Your task to perform on an android device: turn on priority inbox in the gmail app Image 0: 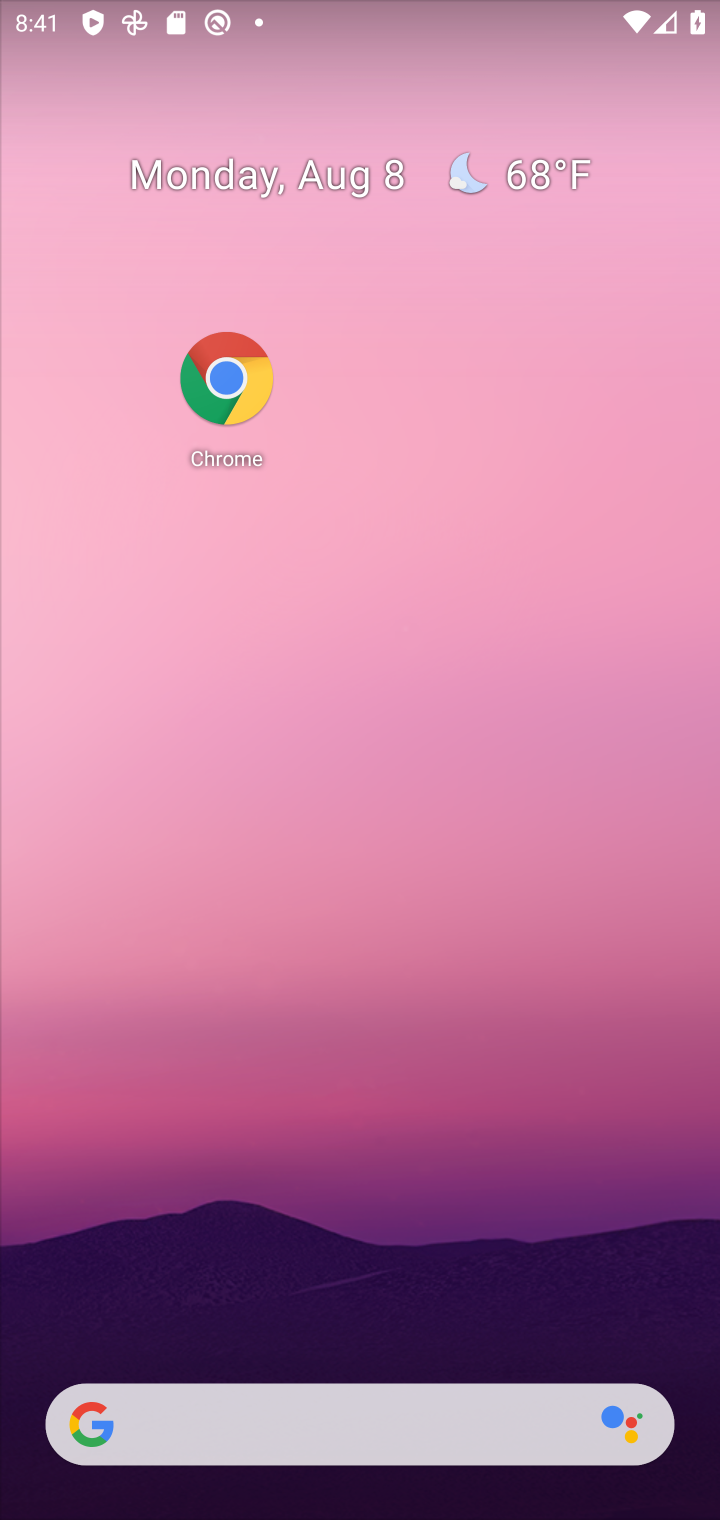
Step 0: drag from (11, 28) to (30, 673)
Your task to perform on an android device: turn on priority inbox in the gmail app Image 1: 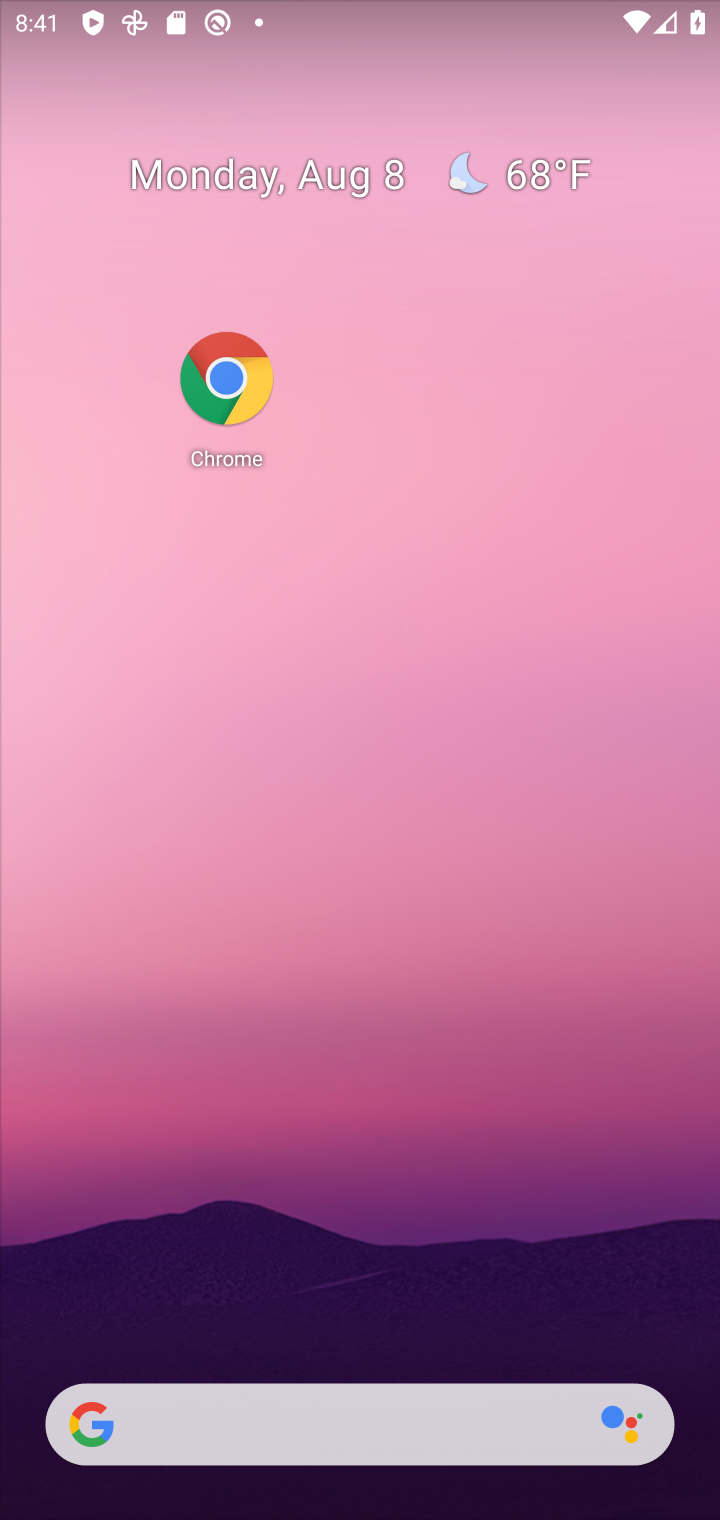
Step 1: drag from (344, 1150) to (427, 24)
Your task to perform on an android device: turn on priority inbox in the gmail app Image 2: 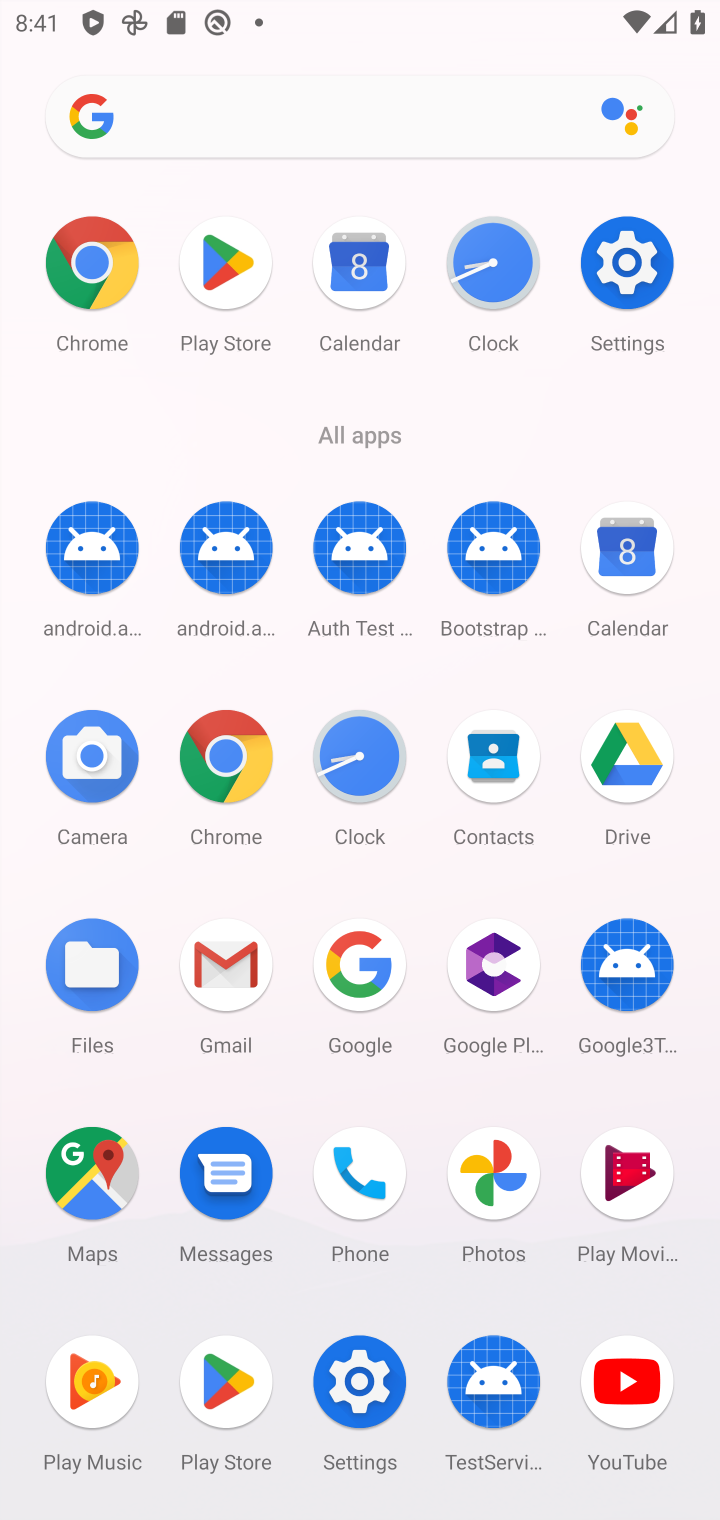
Step 2: click (248, 949)
Your task to perform on an android device: turn on priority inbox in the gmail app Image 3: 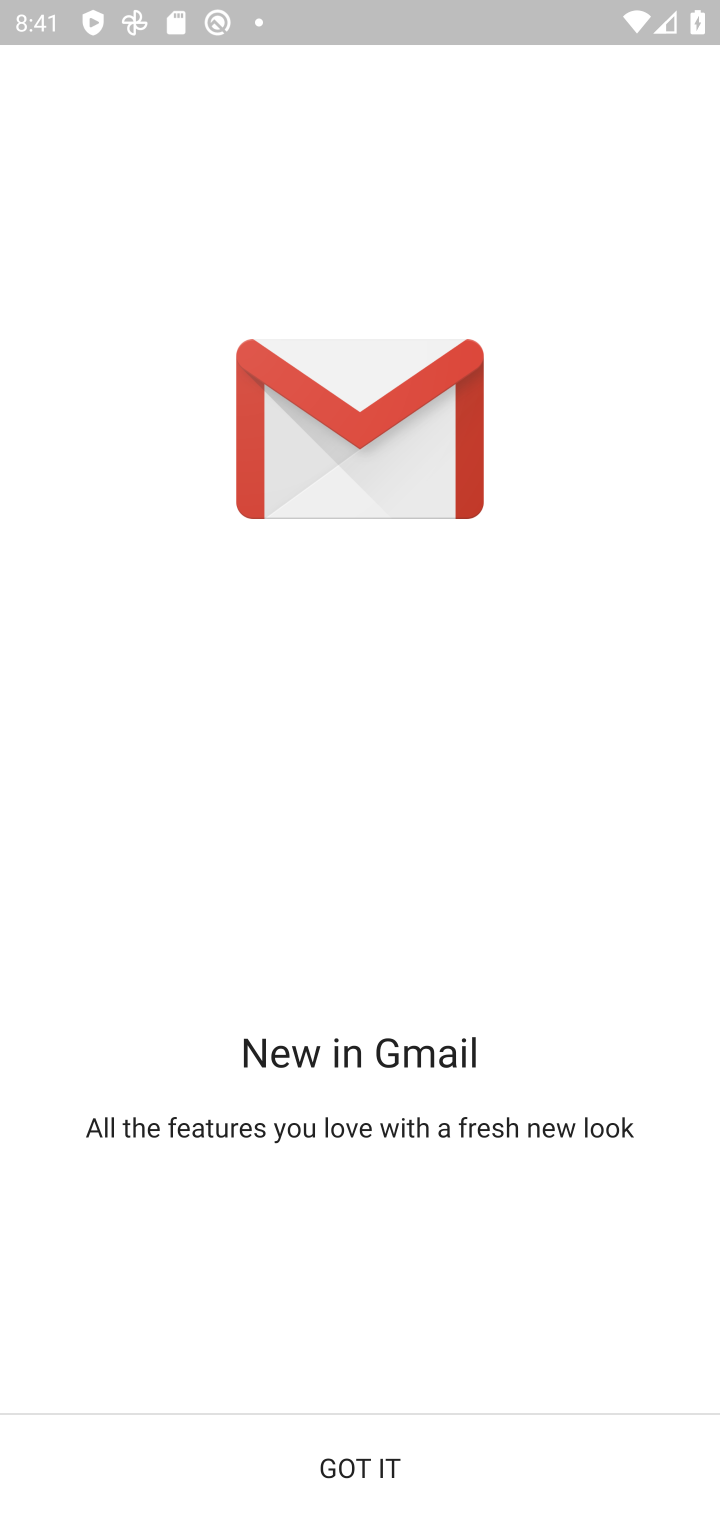
Step 3: click (329, 1485)
Your task to perform on an android device: turn on priority inbox in the gmail app Image 4: 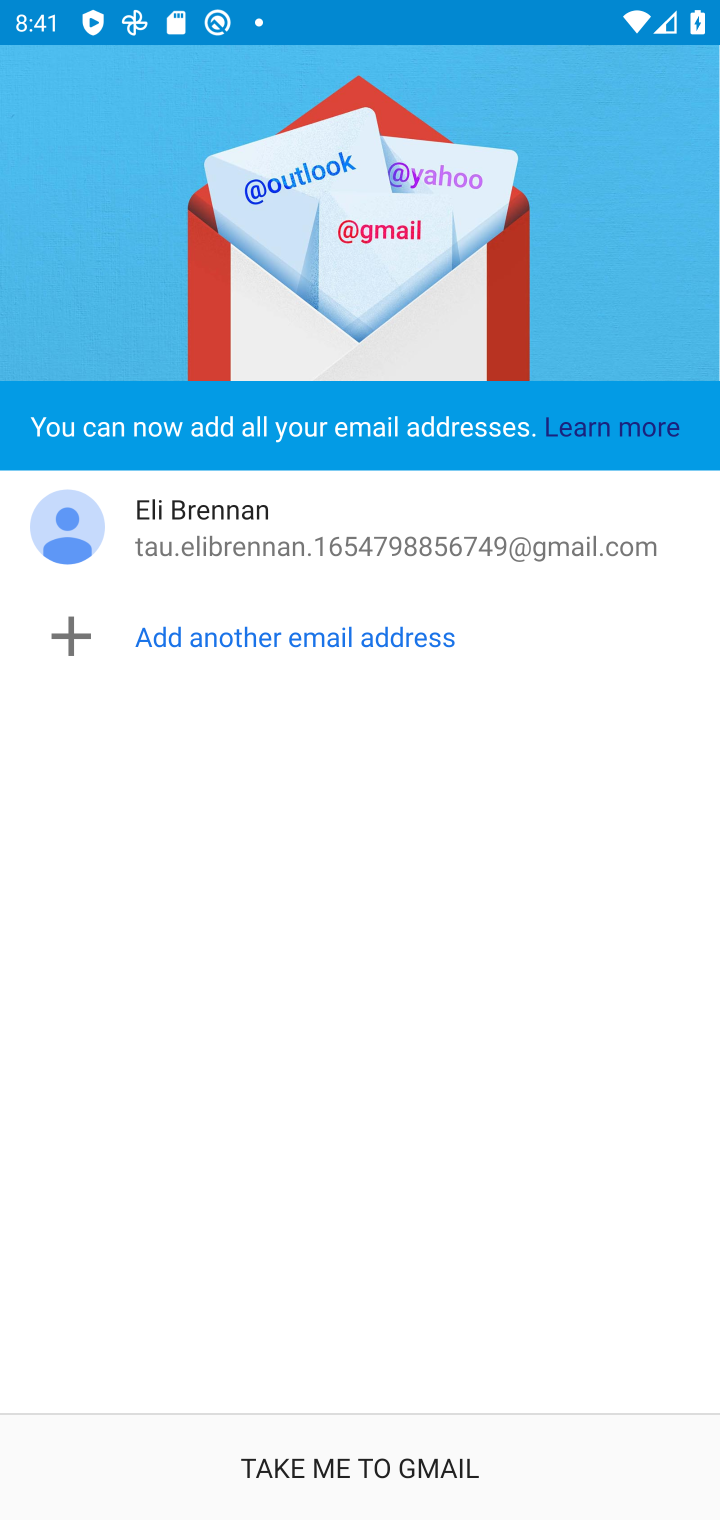
Step 4: click (333, 1465)
Your task to perform on an android device: turn on priority inbox in the gmail app Image 5: 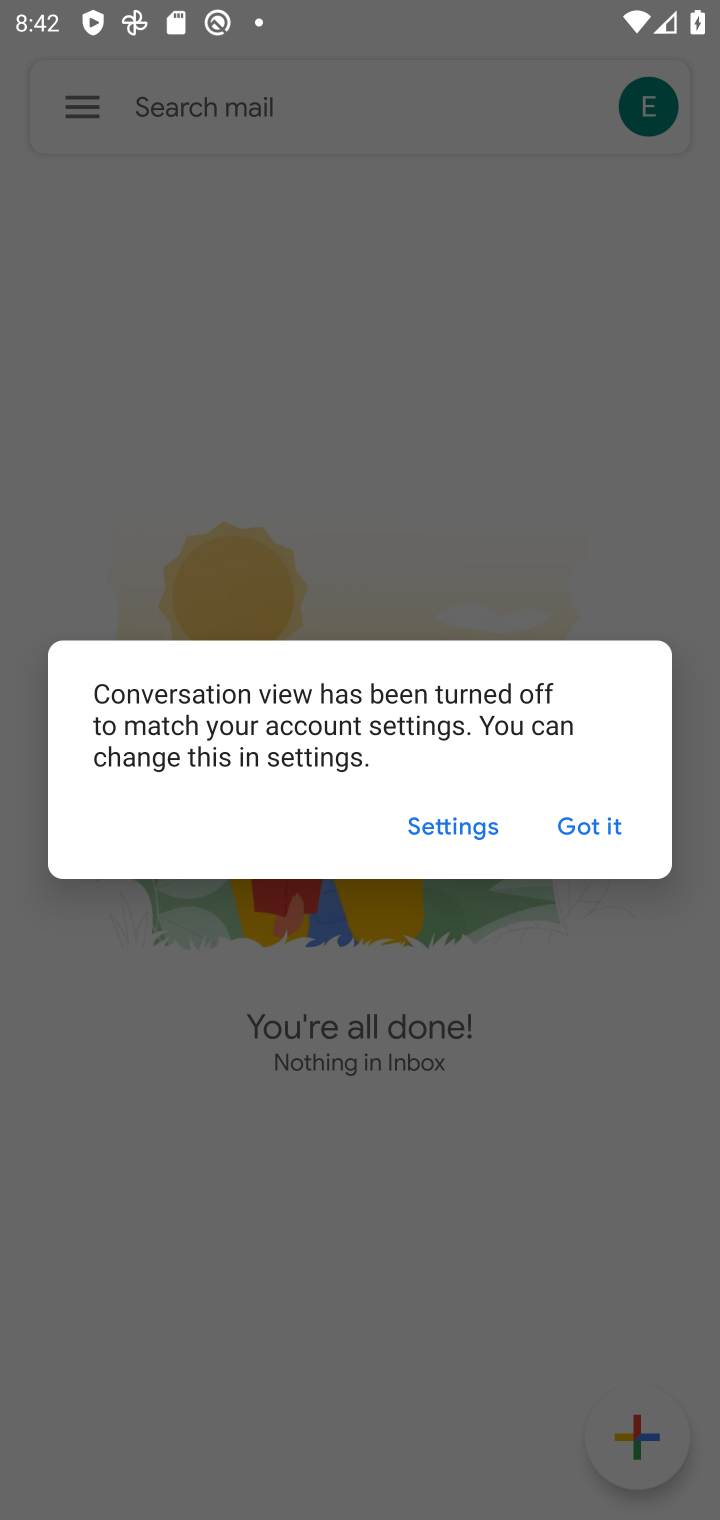
Step 5: click (572, 816)
Your task to perform on an android device: turn on priority inbox in the gmail app Image 6: 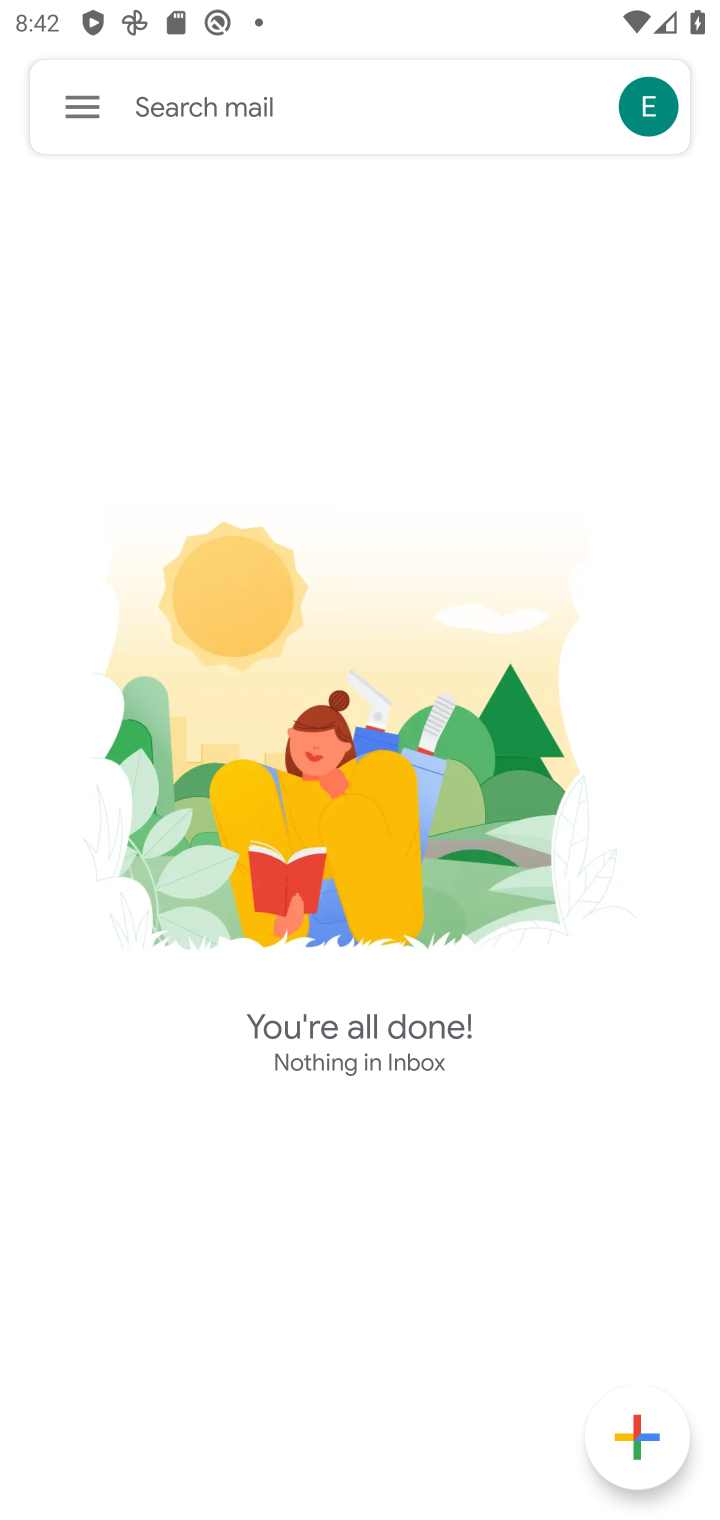
Step 6: click (91, 93)
Your task to perform on an android device: turn on priority inbox in the gmail app Image 7: 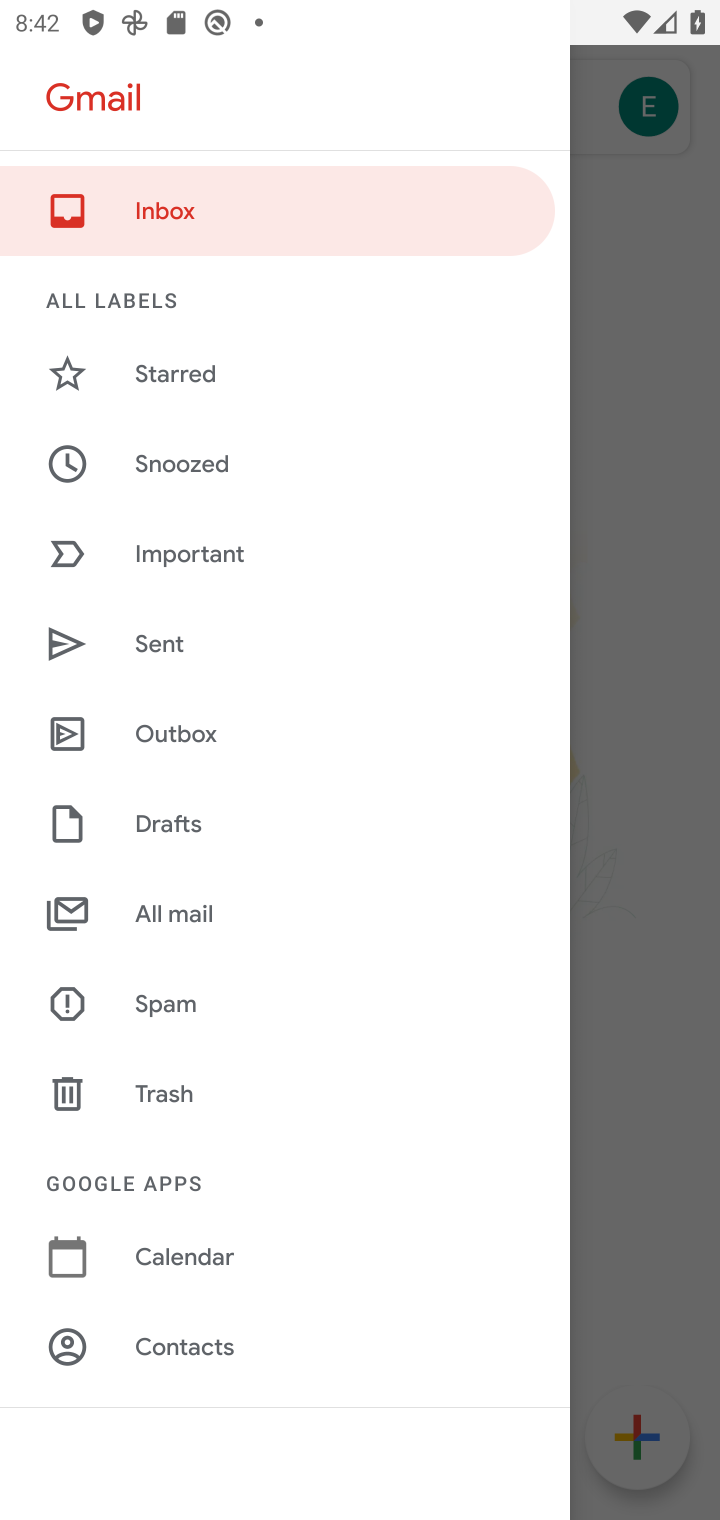
Step 7: drag from (220, 1292) to (259, 381)
Your task to perform on an android device: turn on priority inbox in the gmail app Image 8: 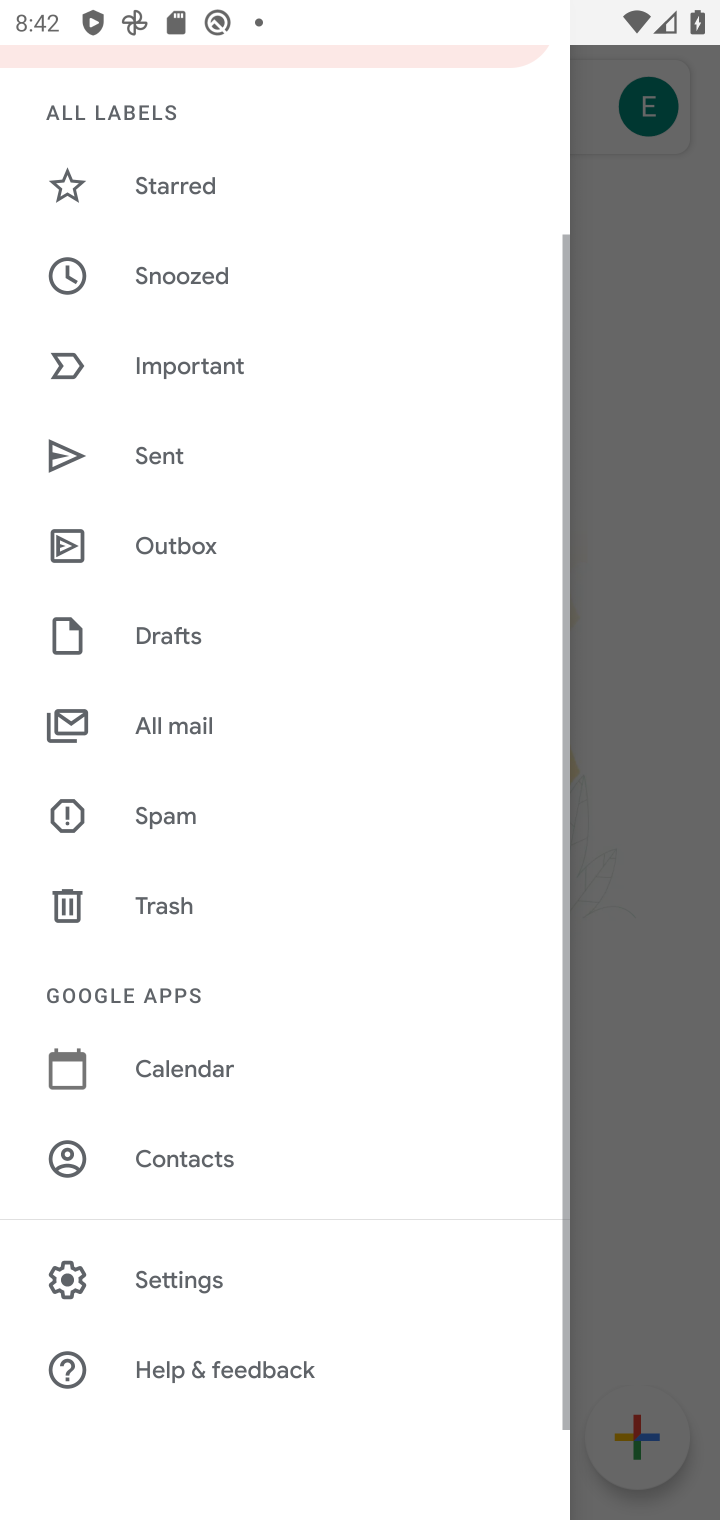
Step 8: click (215, 1270)
Your task to perform on an android device: turn on priority inbox in the gmail app Image 9: 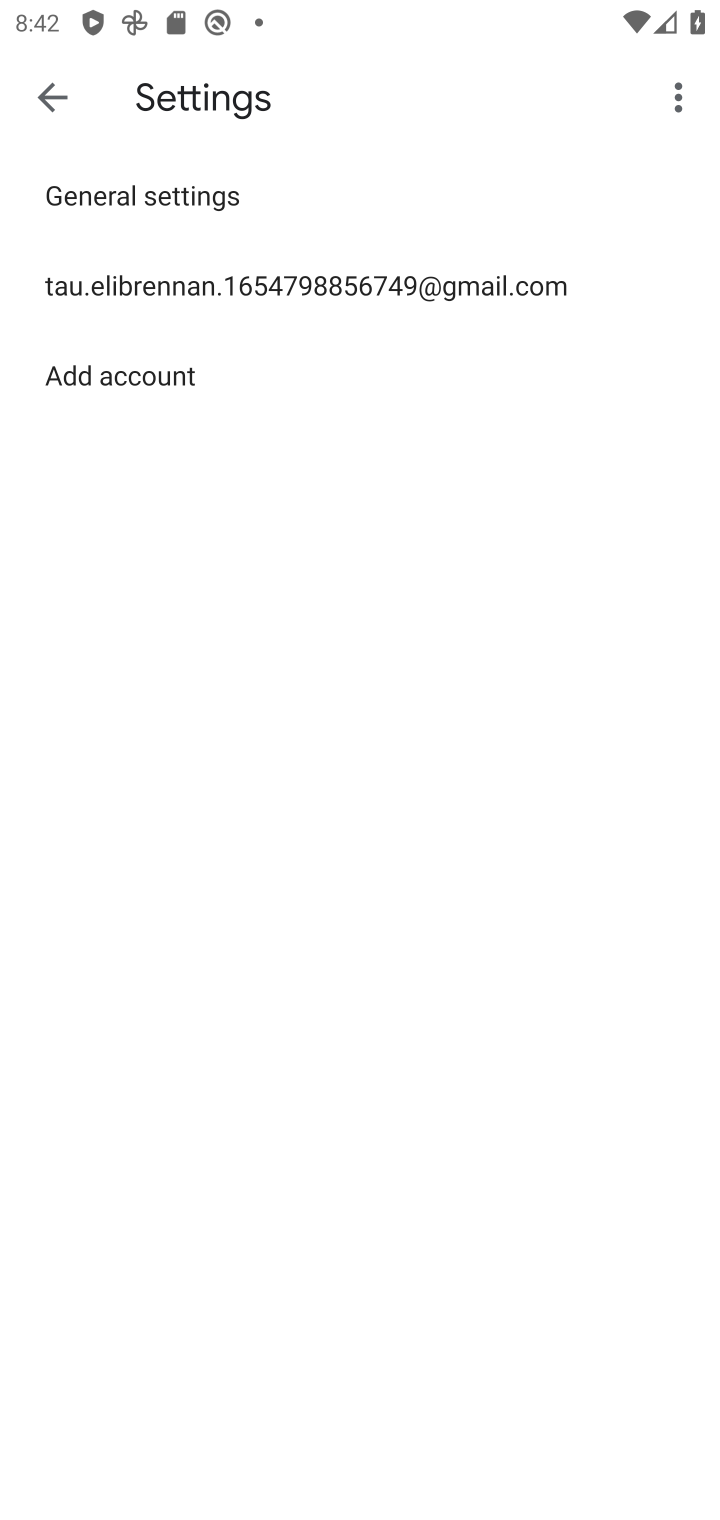
Step 9: click (175, 298)
Your task to perform on an android device: turn on priority inbox in the gmail app Image 10: 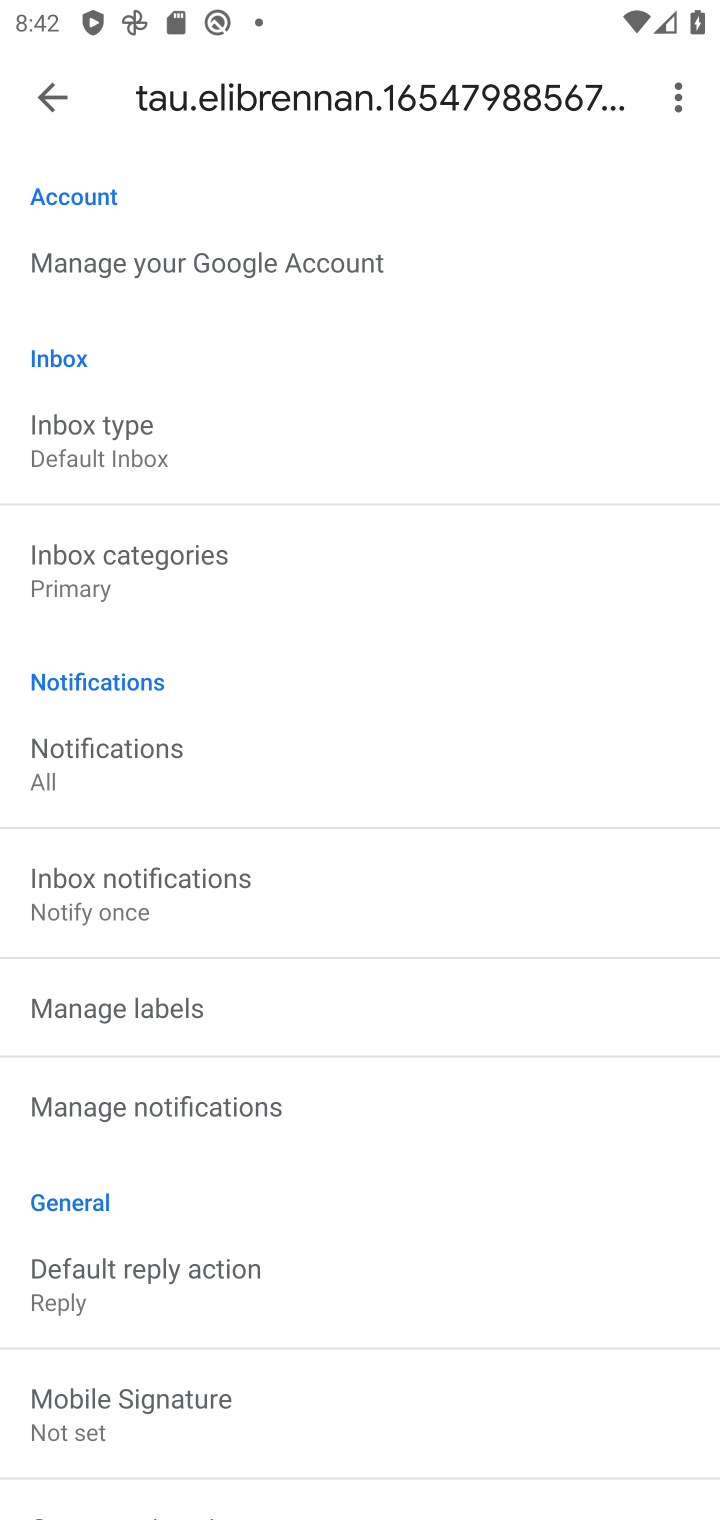
Step 10: click (91, 478)
Your task to perform on an android device: turn on priority inbox in the gmail app Image 11: 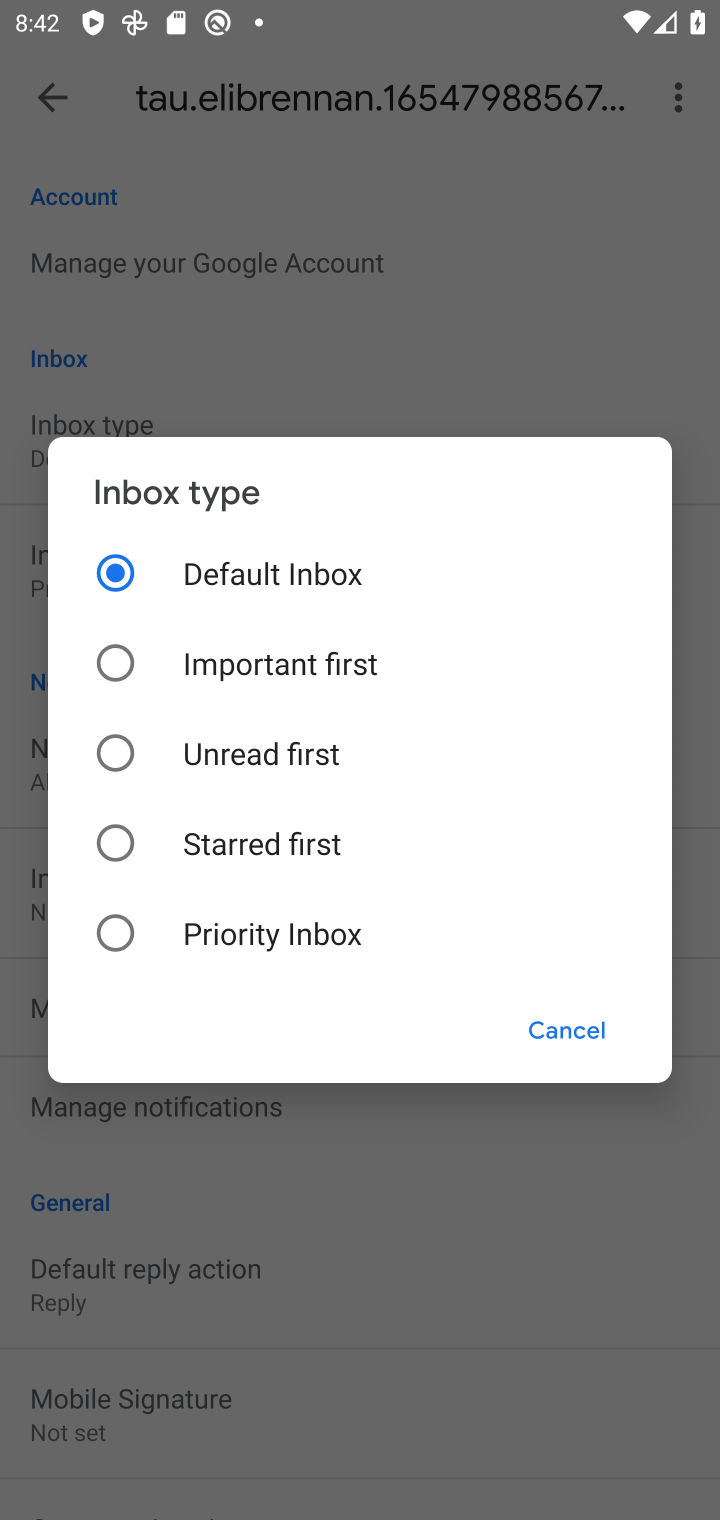
Step 11: click (244, 949)
Your task to perform on an android device: turn on priority inbox in the gmail app Image 12: 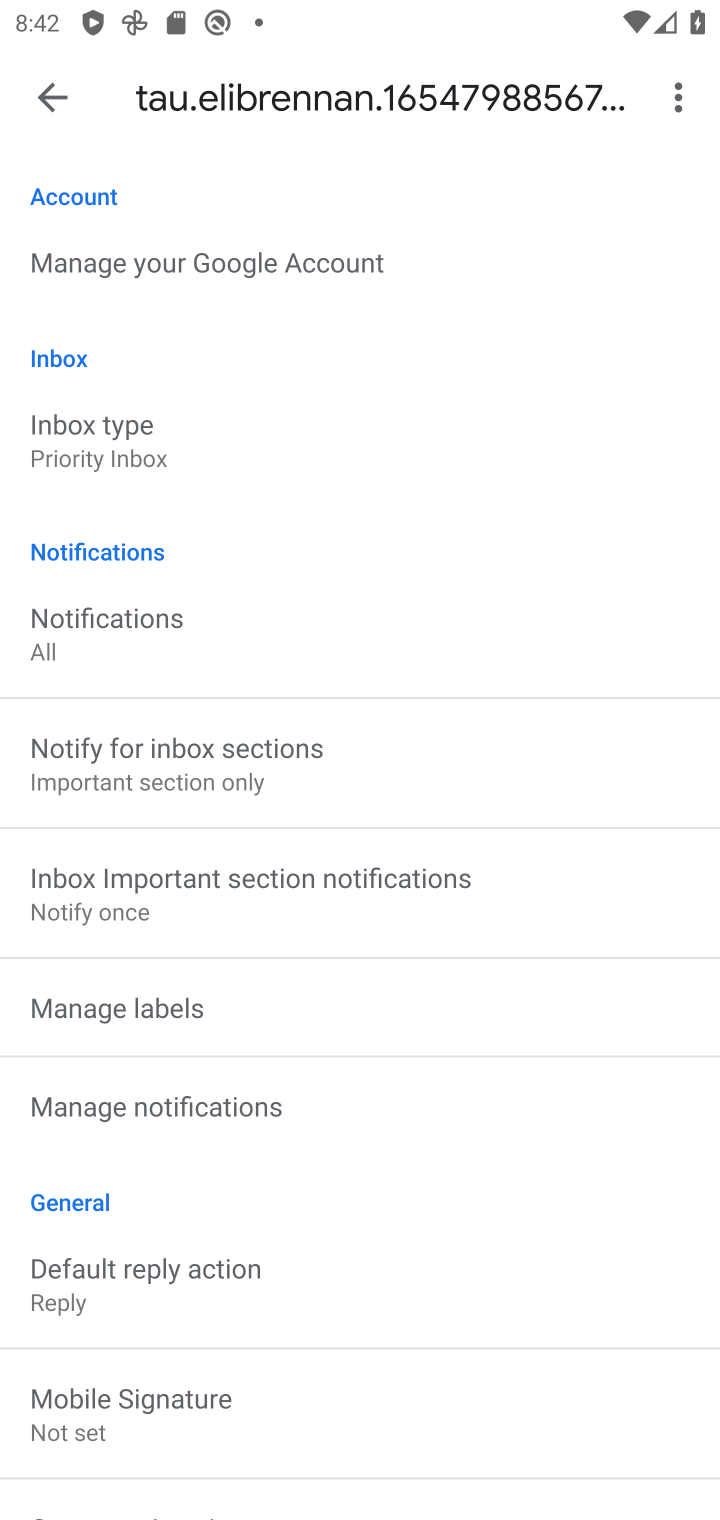
Step 12: task complete